Your task to perform on an android device: Open Wikipedia Image 0: 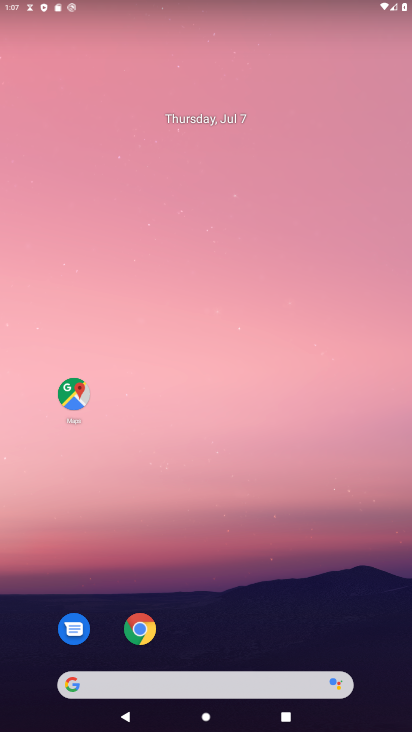
Step 0: click (150, 621)
Your task to perform on an android device: Open Wikipedia Image 1: 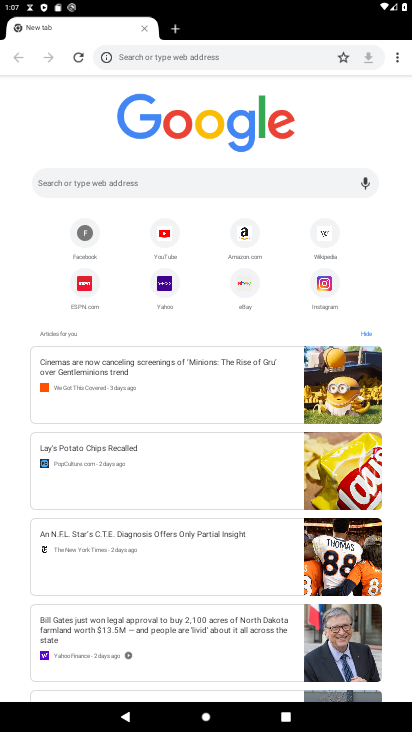
Step 1: click (325, 224)
Your task to perform on an android device: Open Wikipedia Image 2: 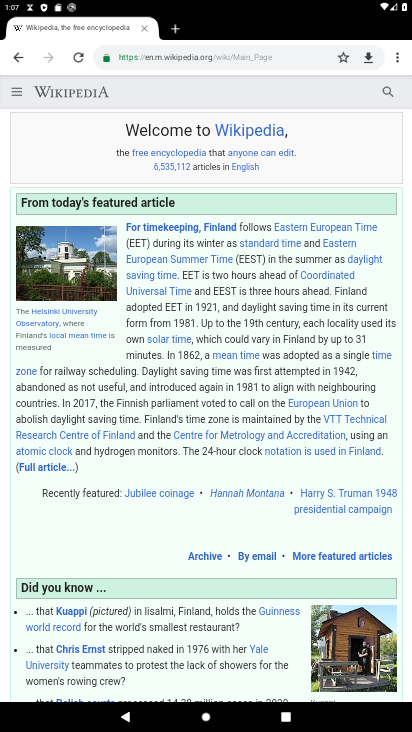
Step 2: task complete